Your task to perform on an android device: turn off javascript in the chrome app Image 0: 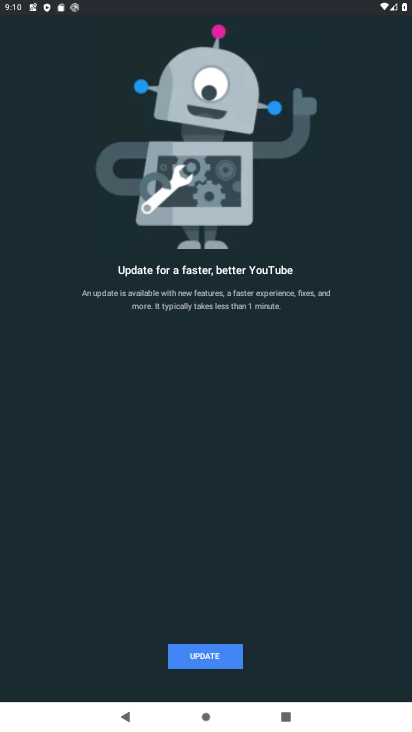
Step 0: press home button
Your task to perform on an android device: turn off javascript in the chrome app Image 1: 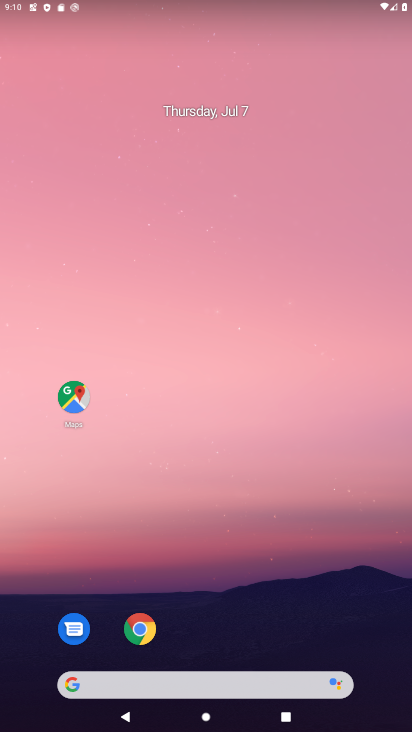
Step 1: click (135, 628)
Your task to perform on an android device: turn off javascript in the chrome app Image 2: 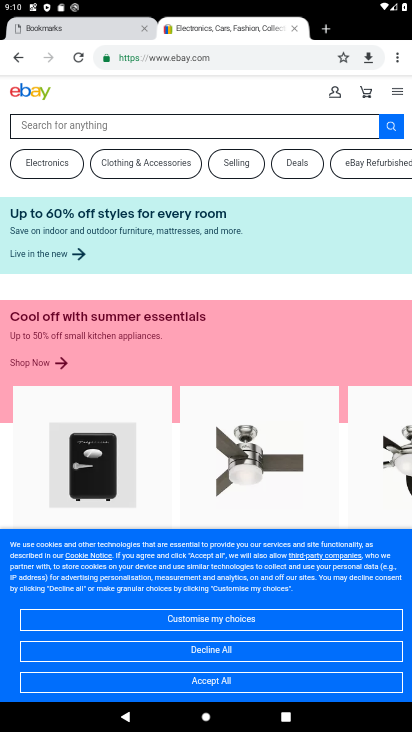
Step 2: click (397, 58)
Your task to perform on an android device: turn off javascript in the chrome app Image 3: 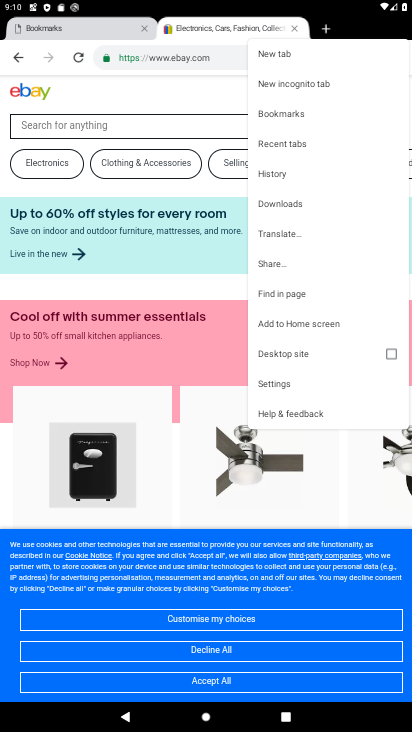
Step 3: click (286, 382)
Your task to perform on an android device: turn off javascript in the chrome app Image 4: 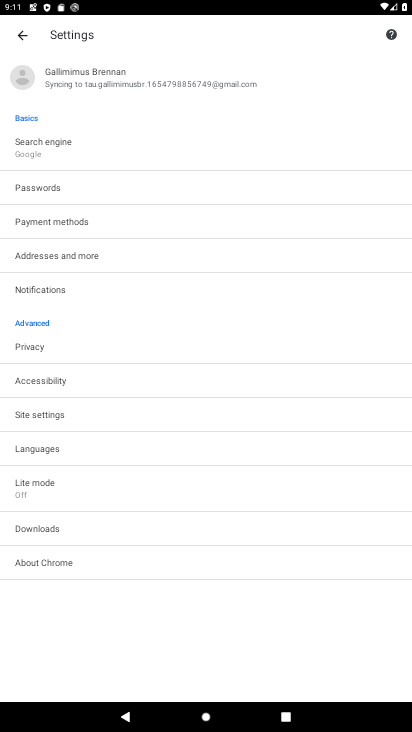
Step 4: click (44, 414)
Your task to perform on an android device: turn off javascript in the chrome app Image 5: 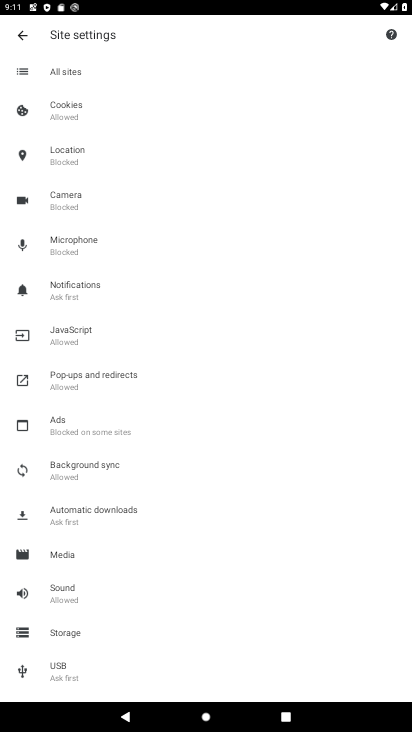
Step 5: click (72, 330)
Your task to perform on an android device: turn off javascript in the chrome app Image 6: 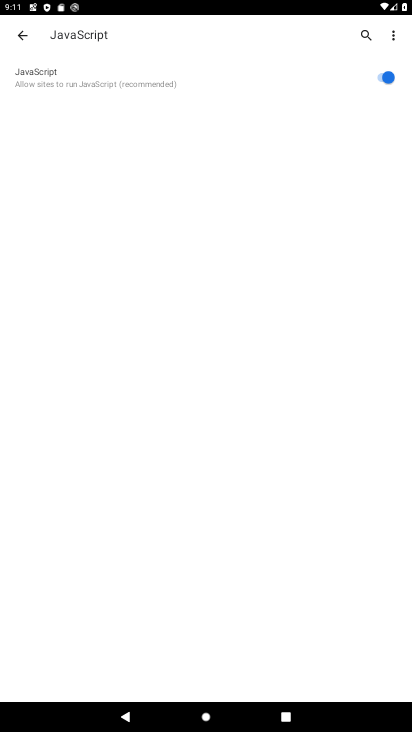
Step 6: click (384, 80)
Your task to perform on an android device: turn off javascript in the chrome app Image 7: 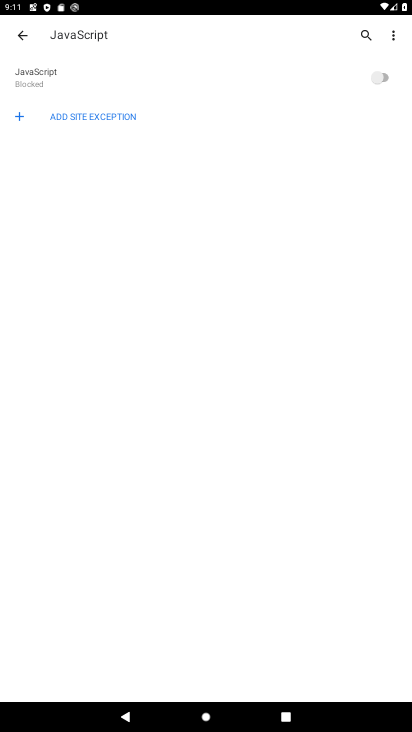
Step 7: task complete